Your task to perform on an android device: set the stopwatch Image 0: 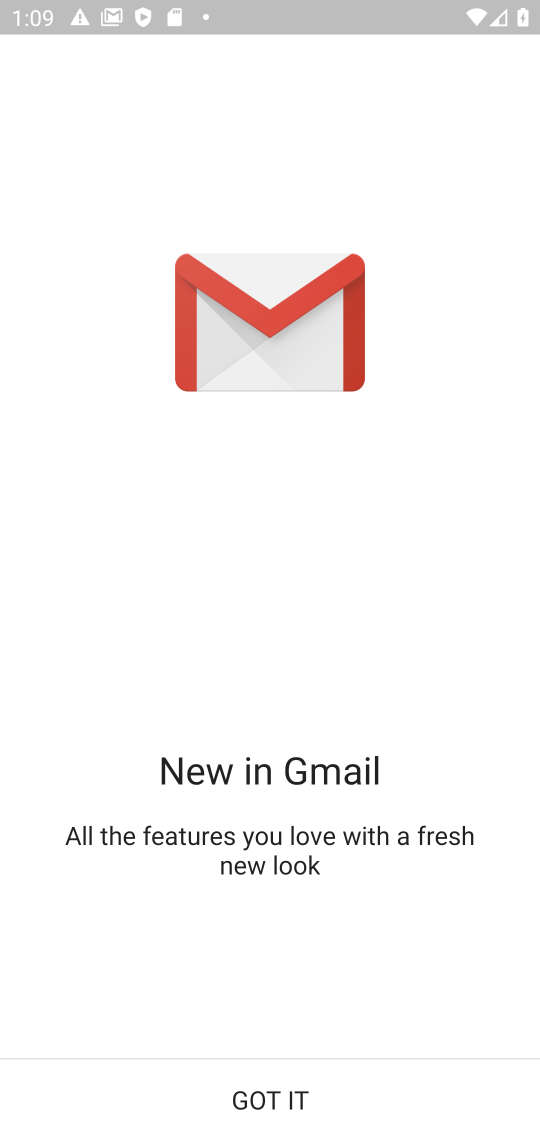
Step 0: press home button
Your task to perform on an android device: set the stopwatch Image 1: 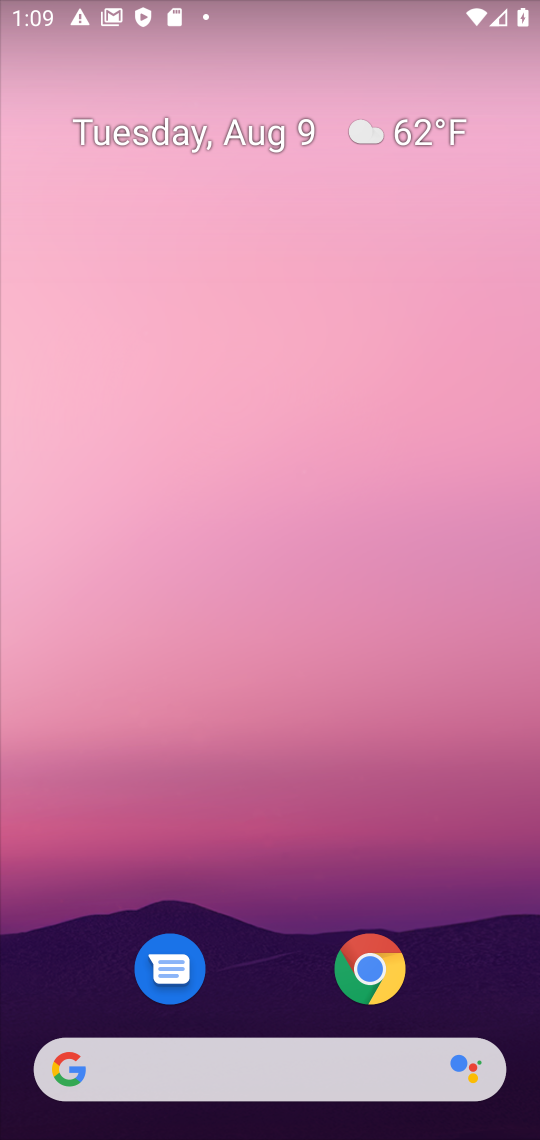
Step 1: drag from (358, 1126) to (369, 181)
Your task to perform on an android device: set the stopwatch Image 2: 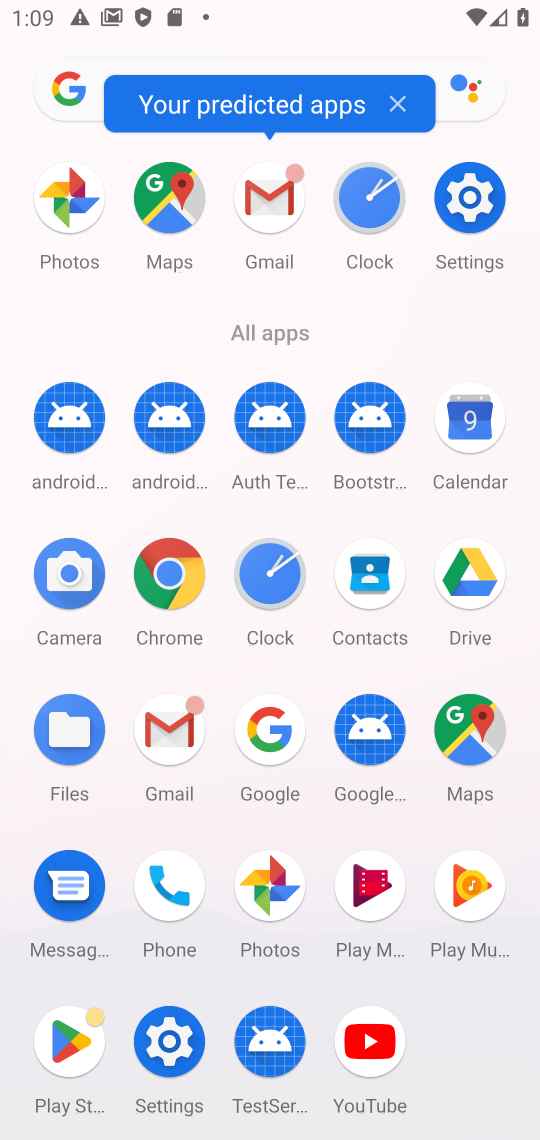
Step 2: click (269, 558)
Your task to perform on an android device: set the stopwatch Image 3: 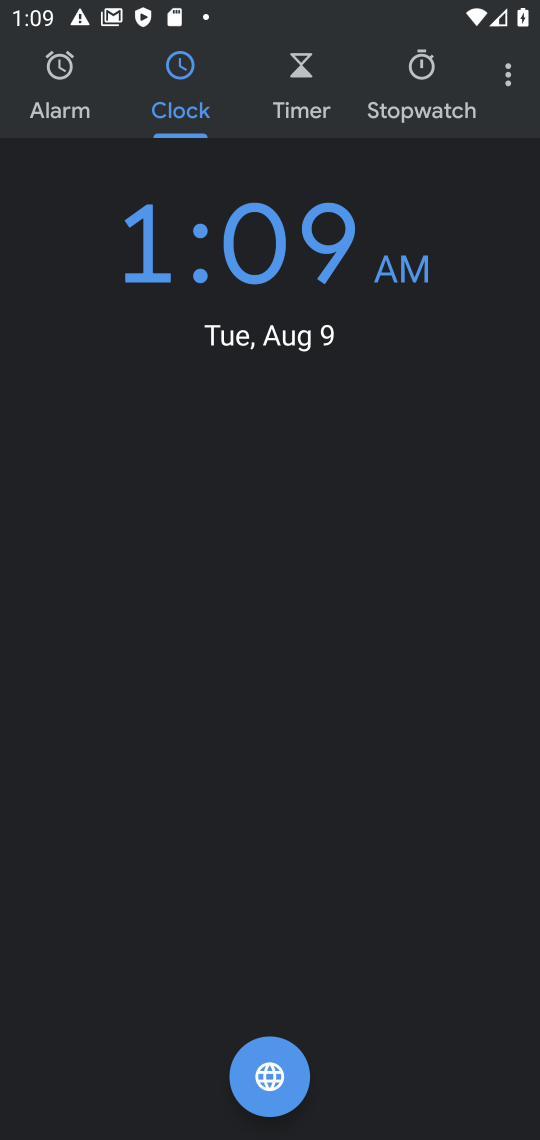
Step 3: click (417, 96)
Your task to perform on an android device: set the stopwatch Image 4: 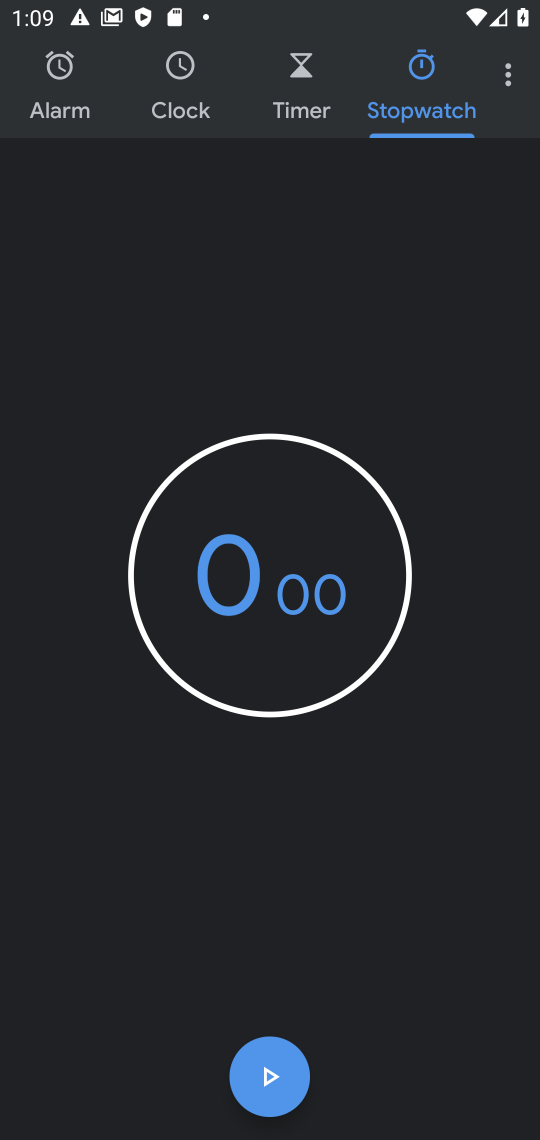
Step 4: click (272, 1078)
Your task to perform on an android device: set the stopwatch Image 5: 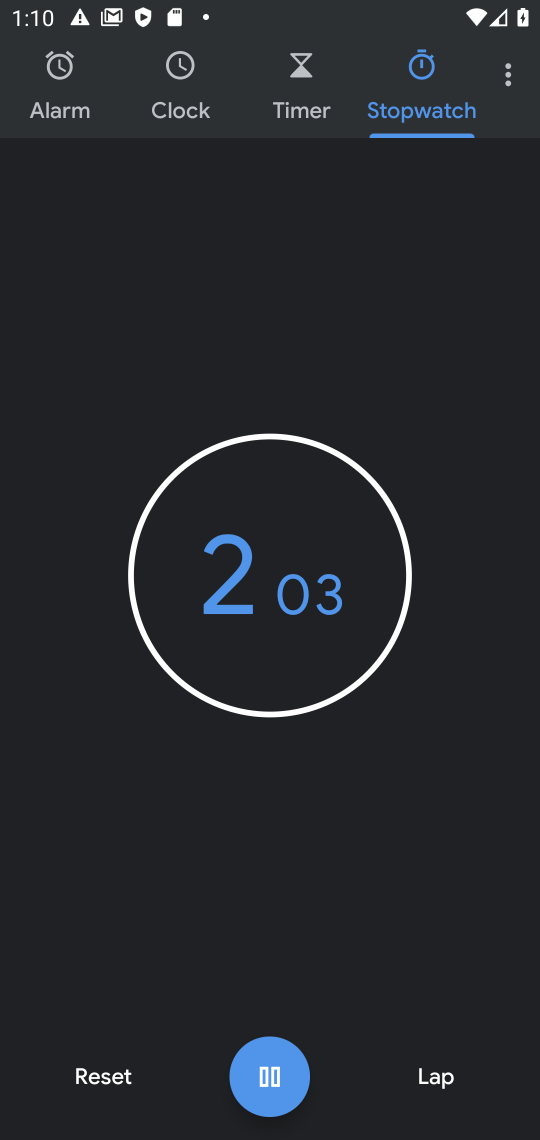
Step 5: click (272, 1078)
Your task to perform on an android device: set the stopwatch Image 6: 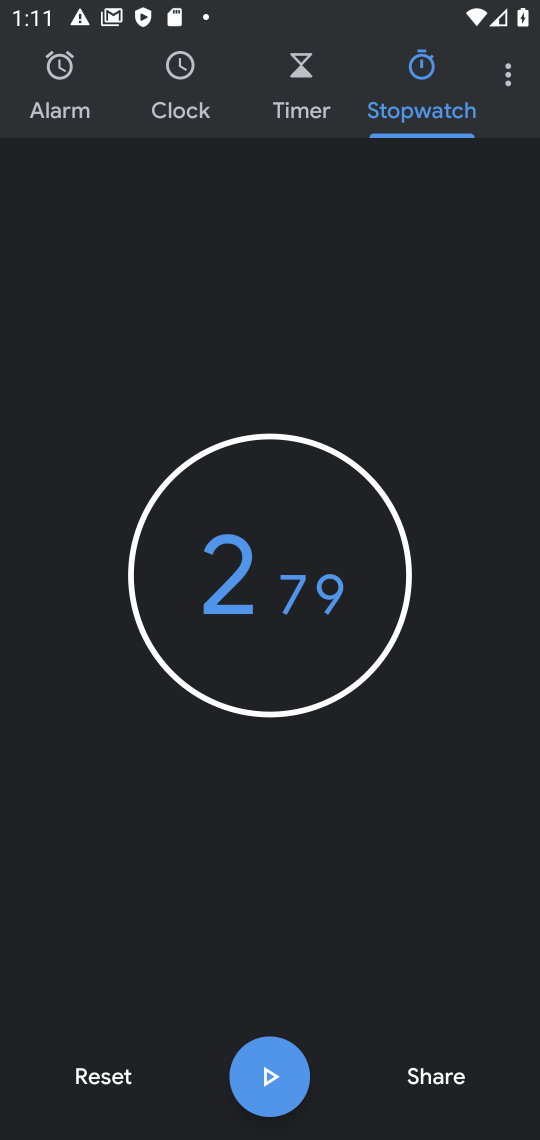
Step 6: task complete